Your task to perform on an android device: turn on translation in the chrome app Image 0: 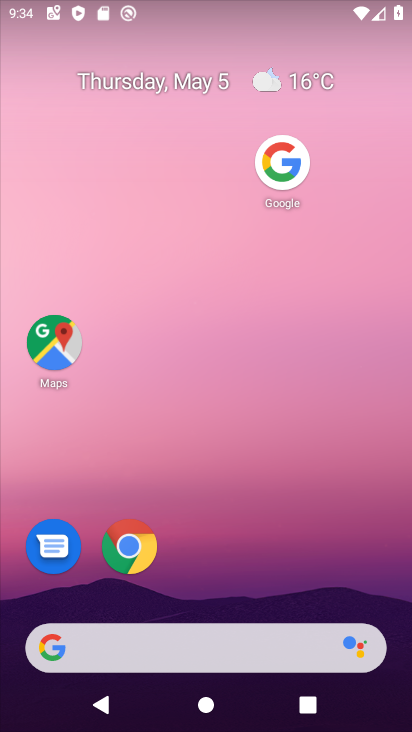
Step 0: drag from (137, 643) to (365, 0)
Your task to perform on an android device: turn on translation in the chrome app Image 1: 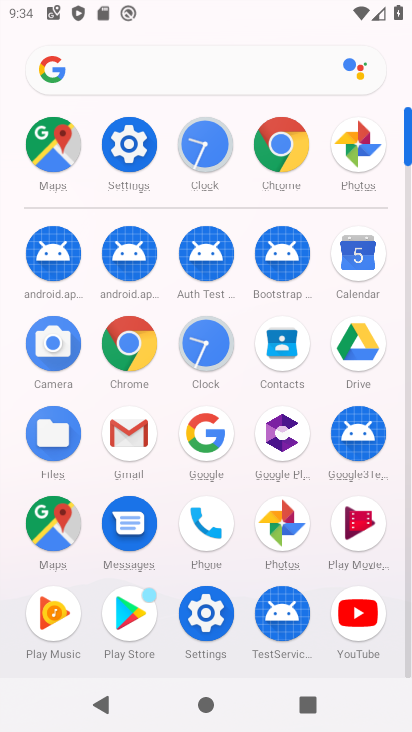
Step 1: click (284, 151)
Your task to perform on an android device: turn on translation in the chrome app Image 2: 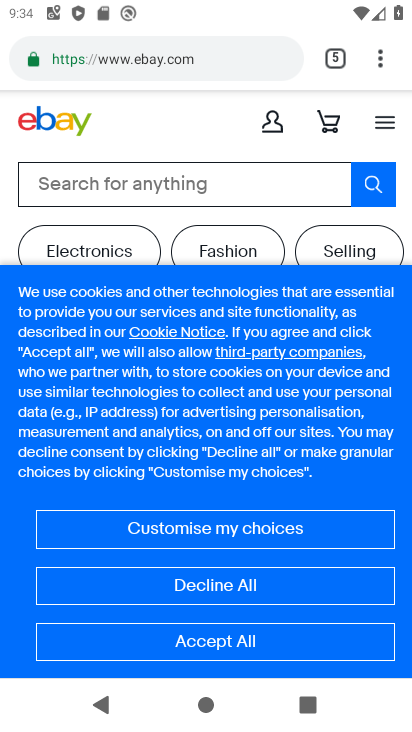
Step 2: drag from (378, 58) to (241, 576)
Your task to perform on an android device: turn on translation in the chrome app Image 3: 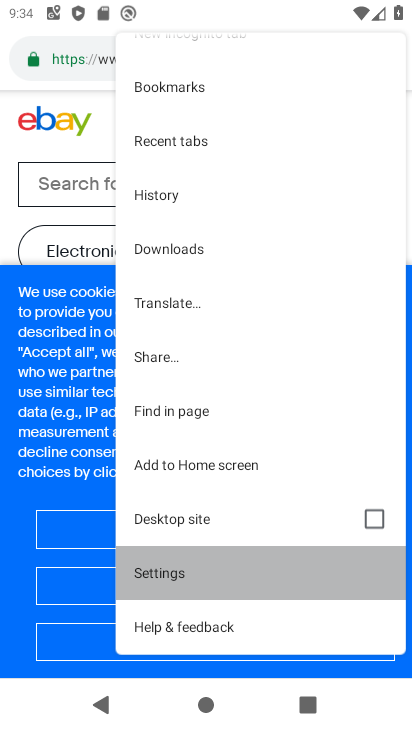
Step 3: click (241, 576)
Your task to perform on an android device: turn on translation in the chrome app Image 4: 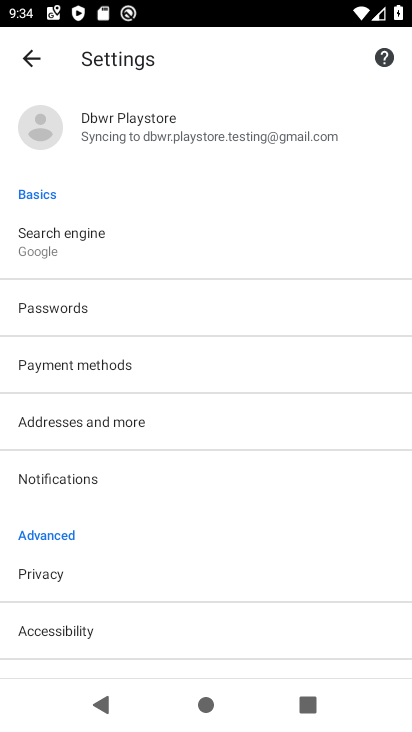
Step 4: drag from (167, 580) to (370, 151)
Your task to perform on an android device: turn on translation in the chrome app Image 5: 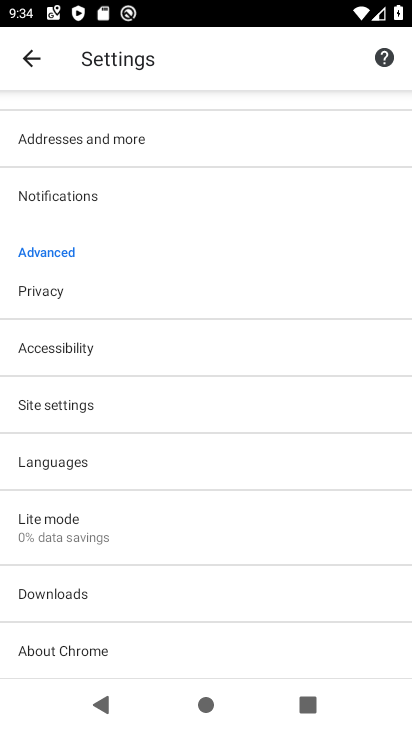
Step 5: click (105, 470)
Your task to perform on an android device: turn on translation in the chrome app Image 6: 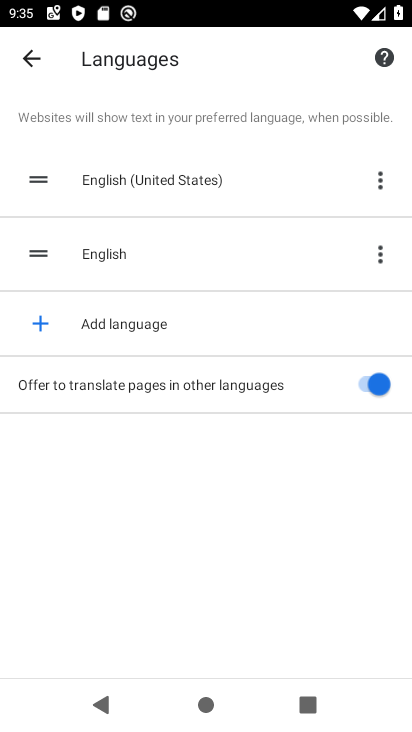
Step 6: task complete